Your task to perform on an android device: Go to privacy settings Image 0: 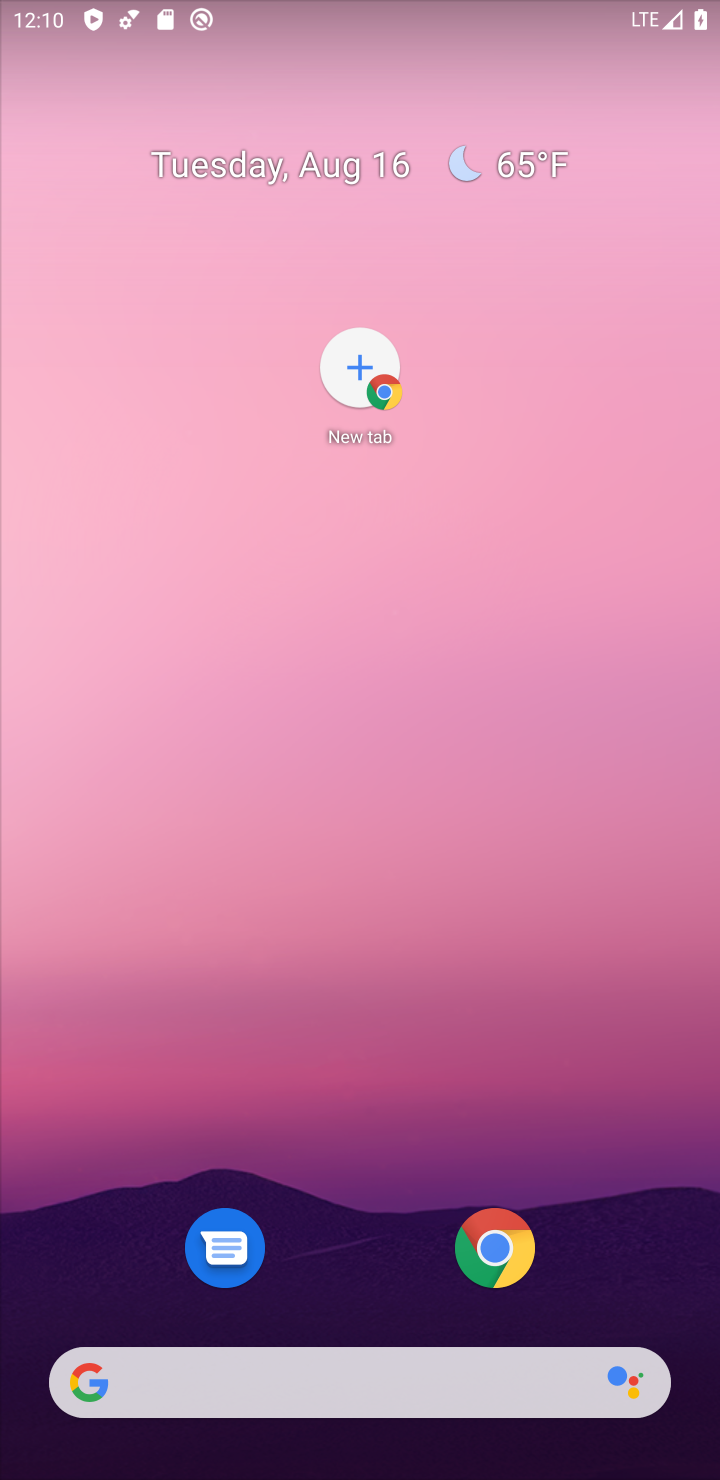
Step 0: drag from (409, 1325) to (538, 109)
Your task to perform on an android device: Go to privacy settings Image 1: 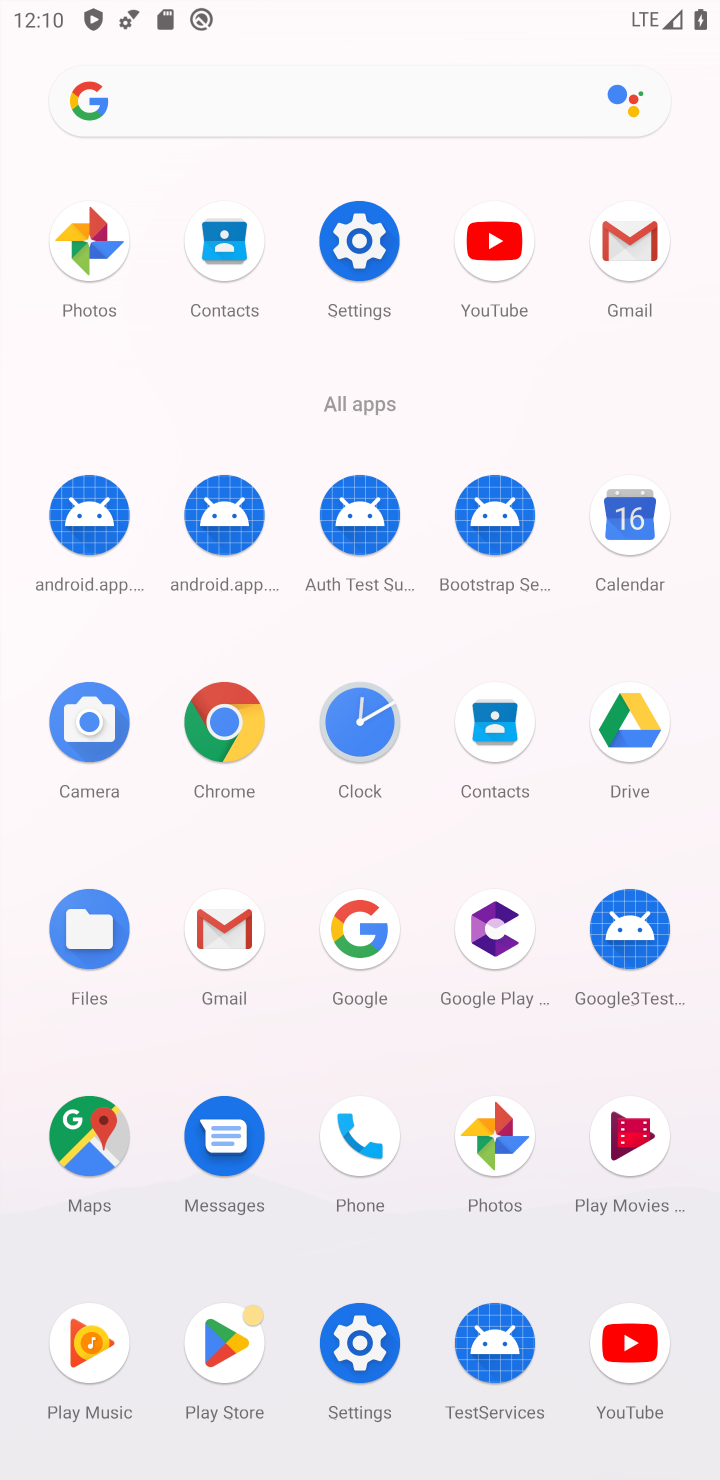
Step 1: click (369, 307)
Your task to perform on an android device: Go to privacy settings Image 2: 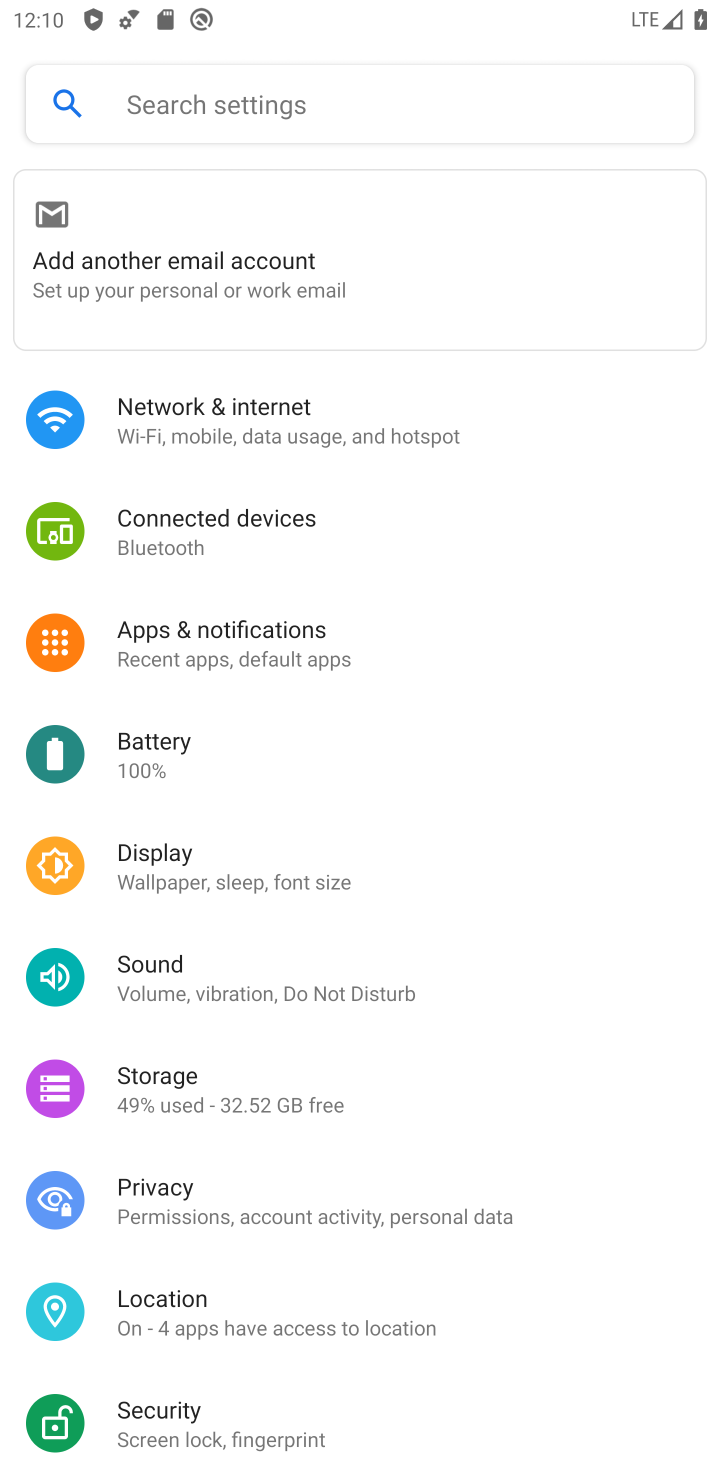
Step 2: click (368, 1209)
Your task to perform on an android device: Go to privacy settings Image 3: 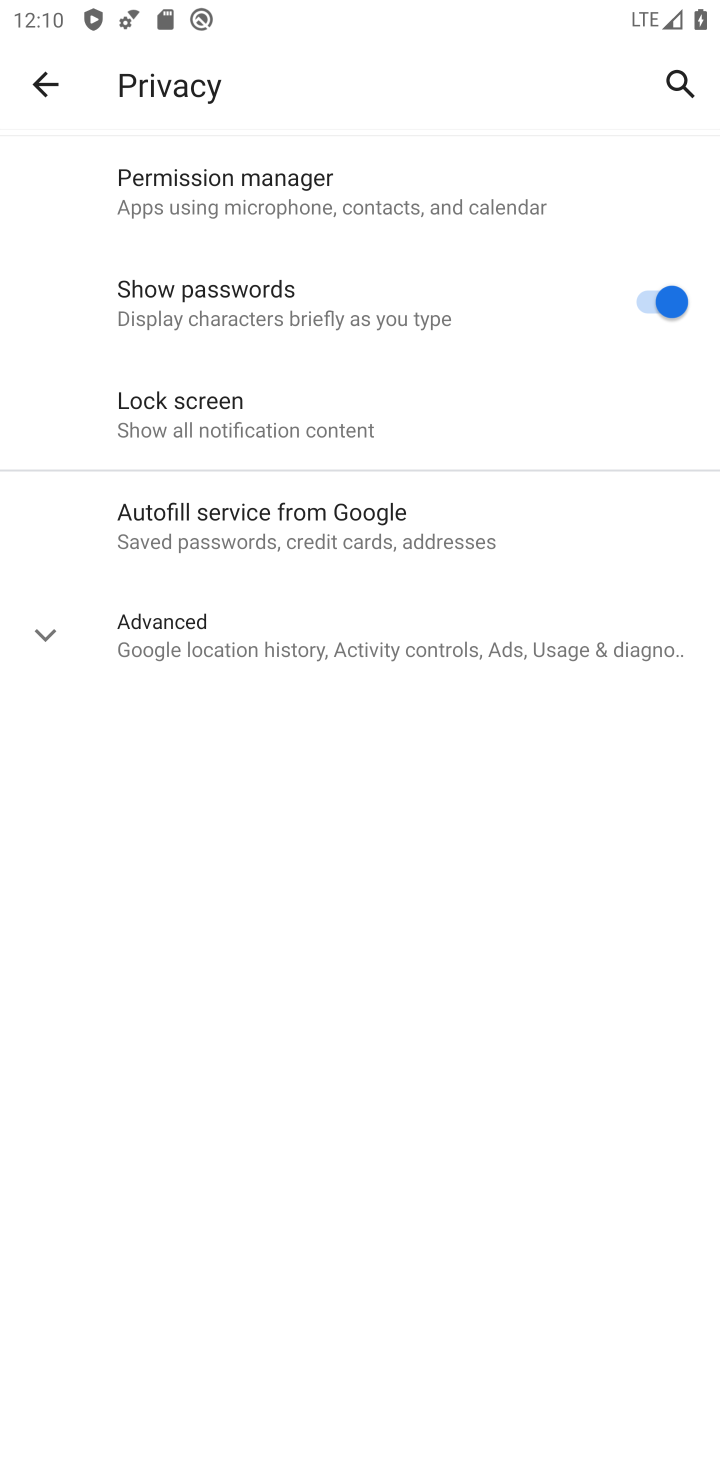
Step 3: task complete